Your task to perform on an android device: check battery use Image 0: 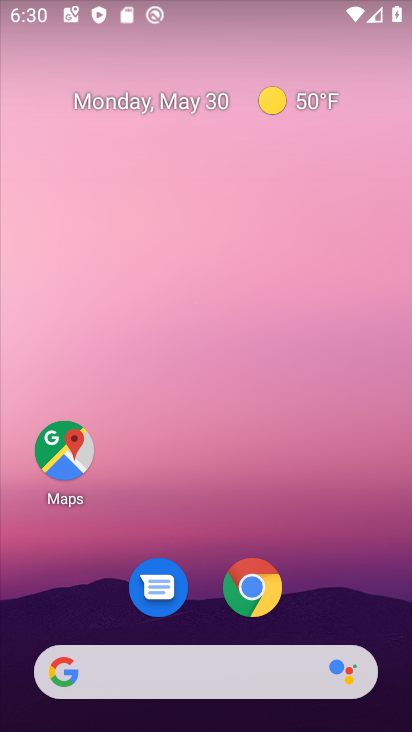
Step 0: drag from (297, 503) to (188, 51)
Your task to perform on an android device: check battery use Image 1: 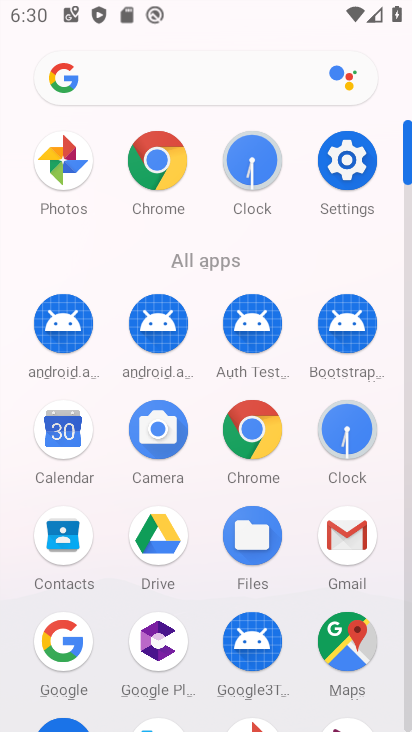
Step 1: drag from (5, 554) to (25, 230)
Your task to perform on an android device: check battery use Image 2: 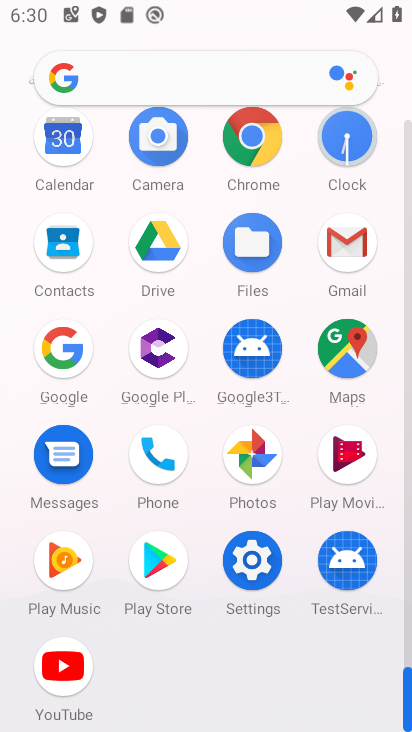
Step 2: click (248, 553)
Your task to perform on an android device: check battery use Image 3: 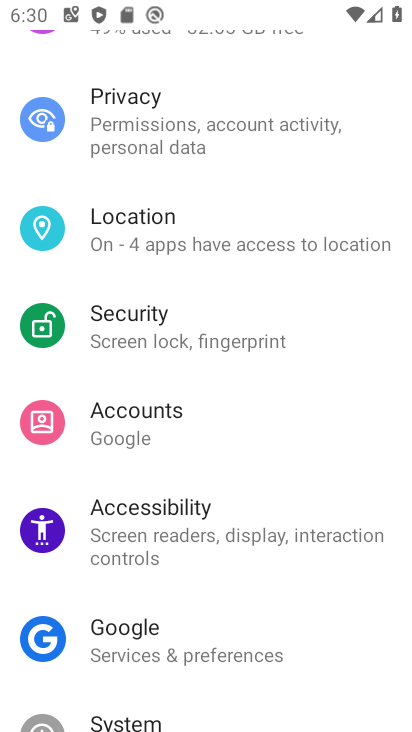
Step 3: drag from (232, 495) to (230, 92)
Your task to perform on an android device: check battery use Image 4: 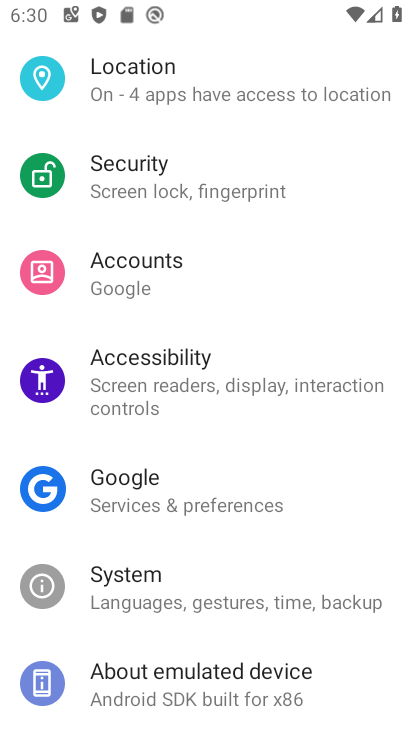
Step 4: drag from (223, 203) to (214, 609)
Your task to perform on an android device: check battery use Image 5: 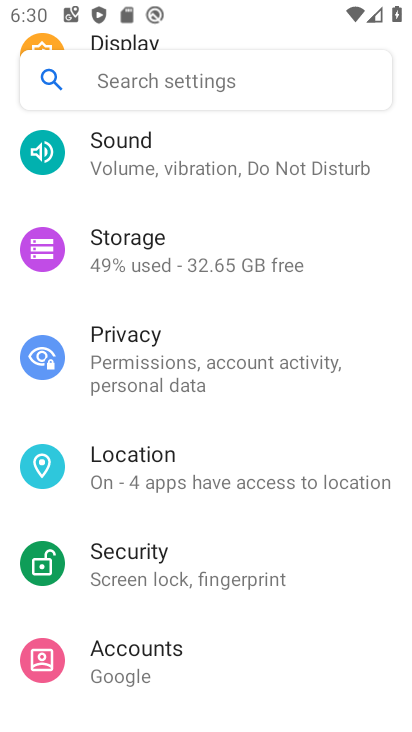
Step 5: drag from (218, 239) to (219, 608)
Your task to perform on an android device: check battery use Image 6: 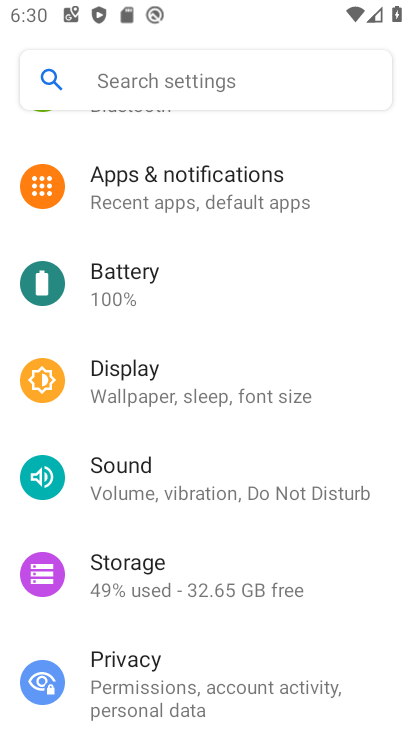
Step 6: click (154, 278)
Your task to perform on an android device: check battery use Image 7: 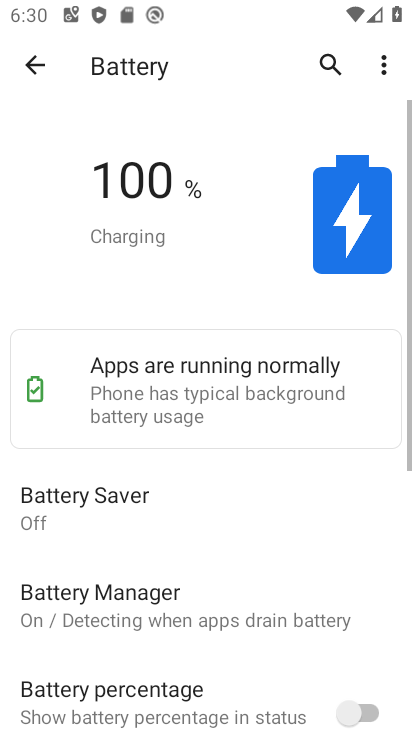
Step 7: task complete